Your task to perform on an android device: see tabs open on other devices in the chrome app Image 0: 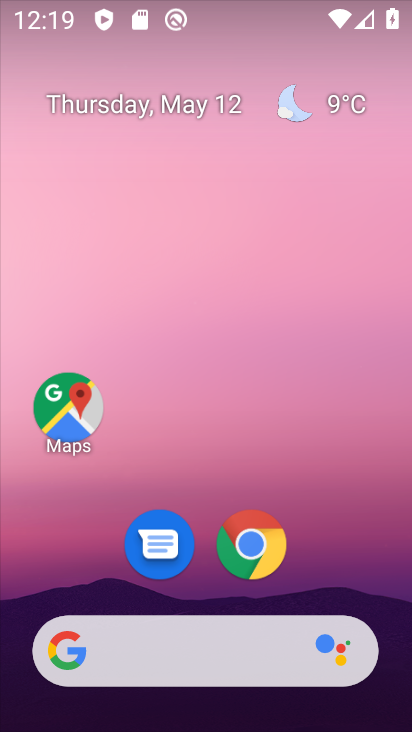
Step 0: click (255, 538)
Your task to perform on an android device: see tabs open on other devices in the chrome app Image 1: 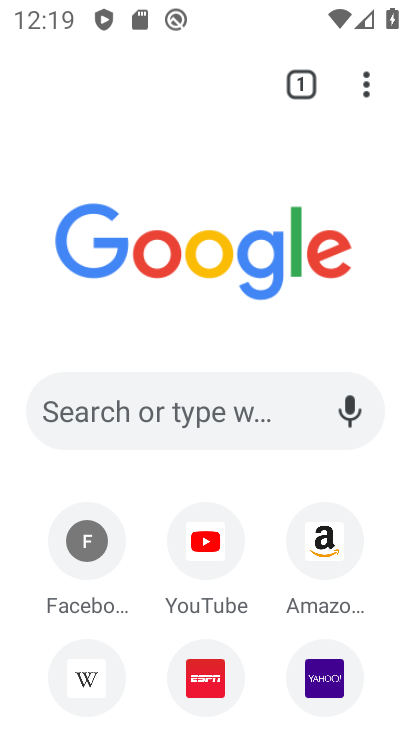
Step 1: click (368, 93)
Your task to perform on an android device: see tabs open on other devices in the chrome app Image 2: 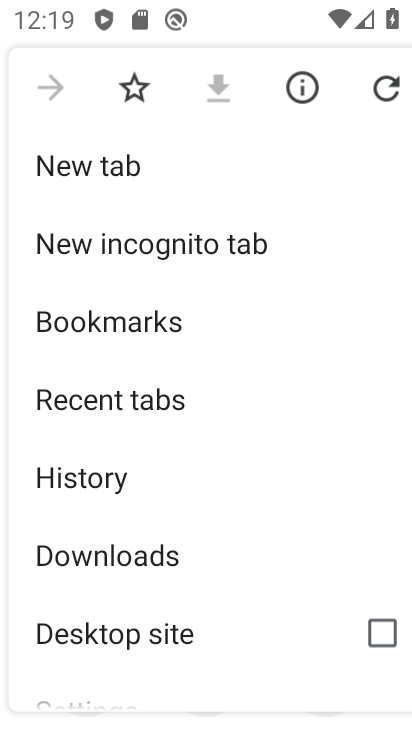
Step 2: click (94, 390)
Your task to perform on an android device: see tabs open on other devices in the chrome app Image 3: 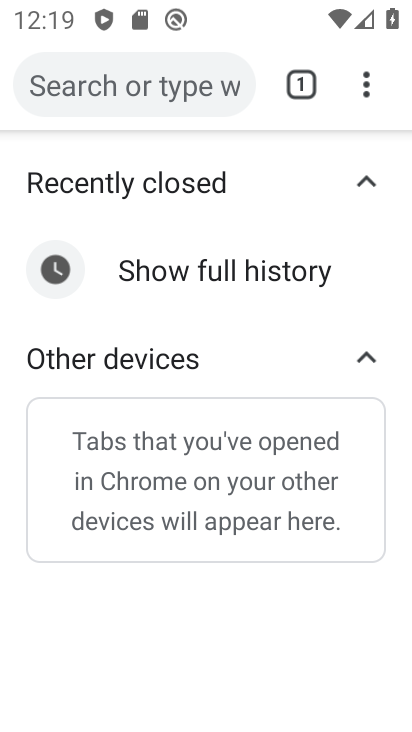
Step 3: task complete